Your task to perform on an android device: Do I have any events today? Image 0: 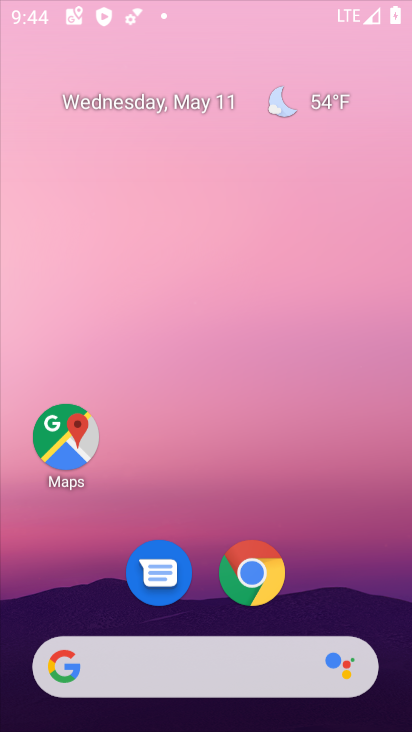
Step 0: drag from (347, 219) to (352, 148)
Your task to perform on an android device: Do I have any events today? Image 1: 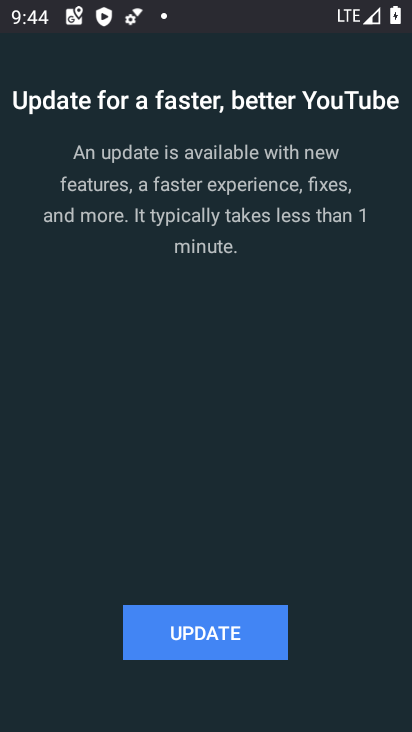
Step 1: press home button
Your task to perform on an android device: Do I have any events today? Image 2: 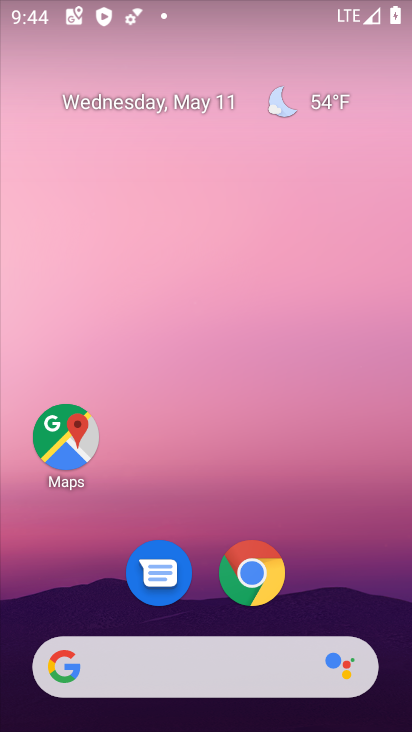
Step 2: drag from (313, 674) to (282, 31)
Your task to perform on an android device: Do I have any events today? Image 3: 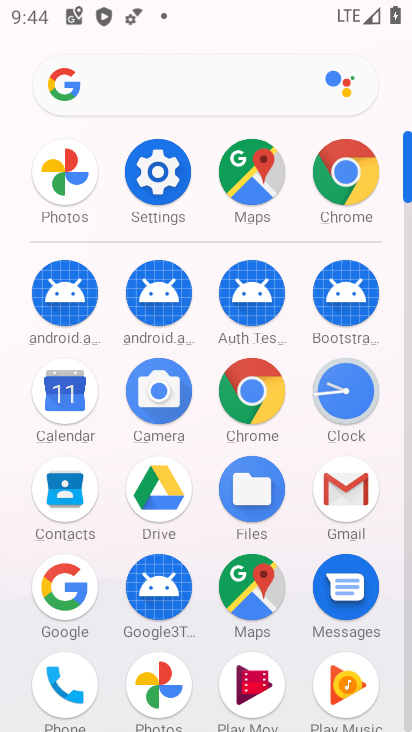
Step 3: click (62, 401)
Your task to perform on an android device: Do I have any events today? Image 4: 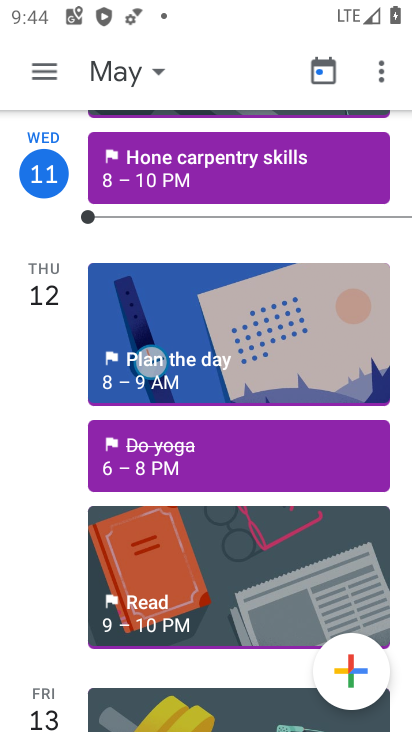
Step 4: click (157, 70)
Your task to perform on an android device: Do I have any events today? Image 5: 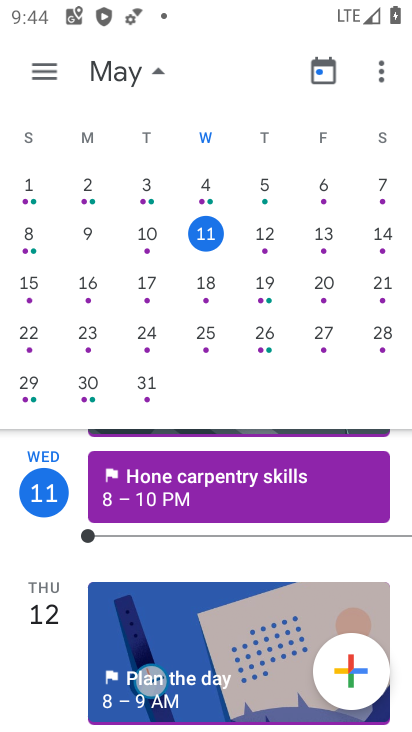
Step 5: click (263, 234)
Your task to perform on an android device: Do I have any events today? Image 6: 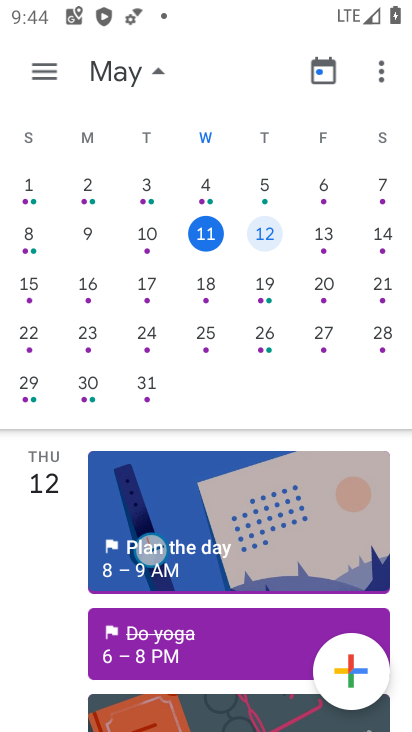
Step 6: click (263, 234)
Your task to perform on an android device: Do I have any events today? Image 7: 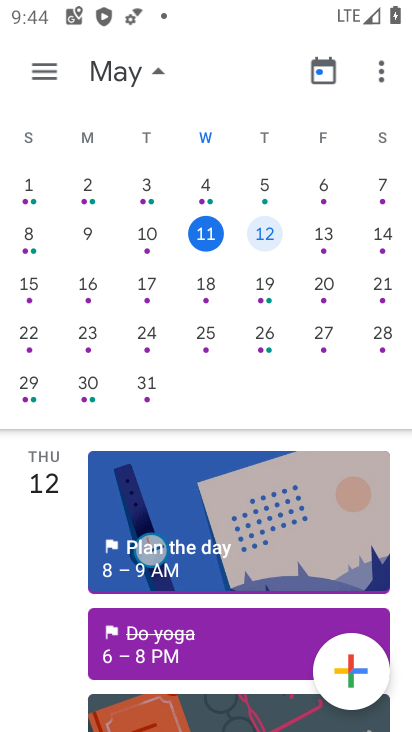
Step 7: task complete